Your task to perform on an android device: open chrome and create a bookmark for the current page Image 0: 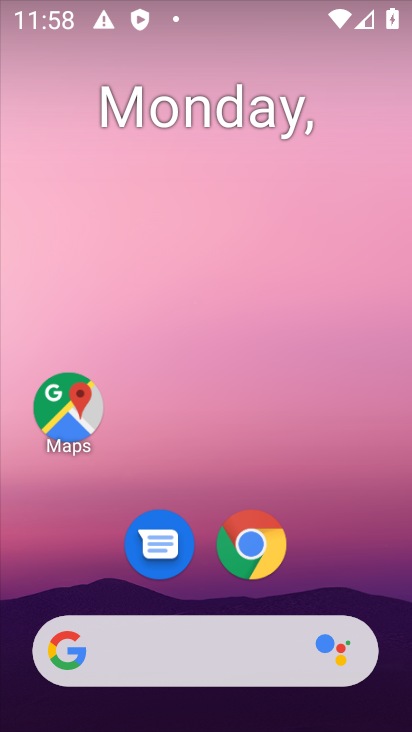
Step 0: drag from (364, 544) to (270, 25)
Your task to perform on an android device: open chrome and create a bookmark for the current page Image 1: 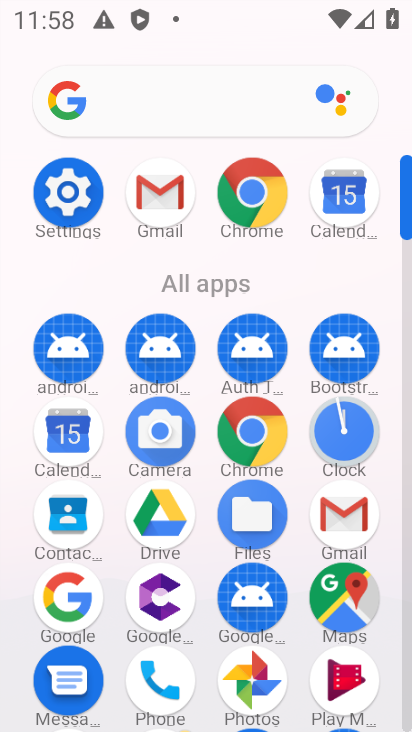
Step 1: click (252, 194)
Your task to perform on an android device: open chrome and create a bookmark for the current page Image 2: 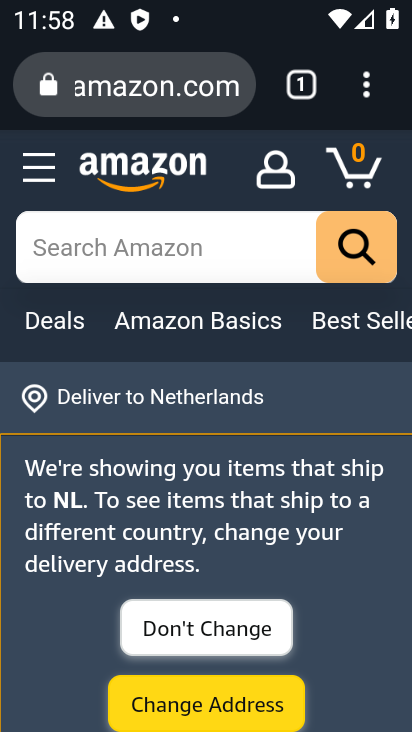
Step 2: click (369, 88)
Your task to perform on an android device: open chrome and create a bookmark for the current page Image 3: 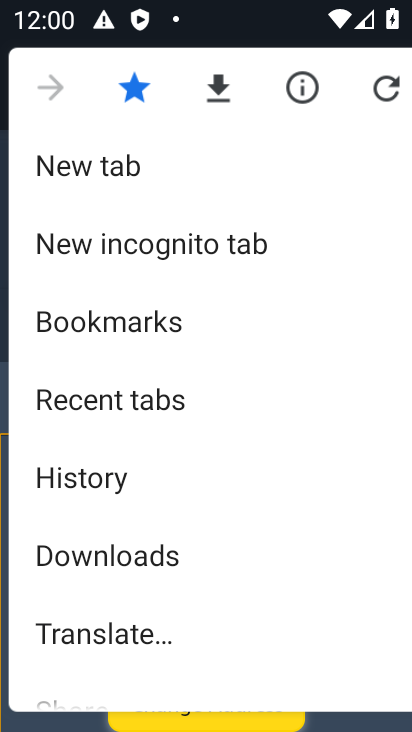
Step 3: task complete